Your task to perform on an android device: Open the Play Movies app and select the watchlist tab. Image 0: 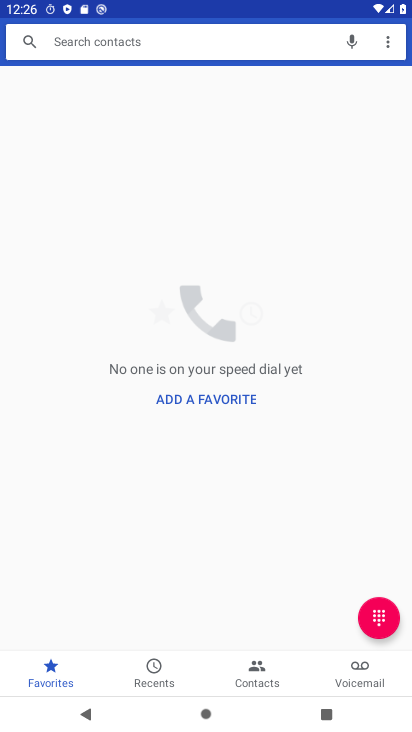
Step 0: press home button
Your task to perform on an android device: Open the Play Movies app and select the watchlist tab. Image 1: 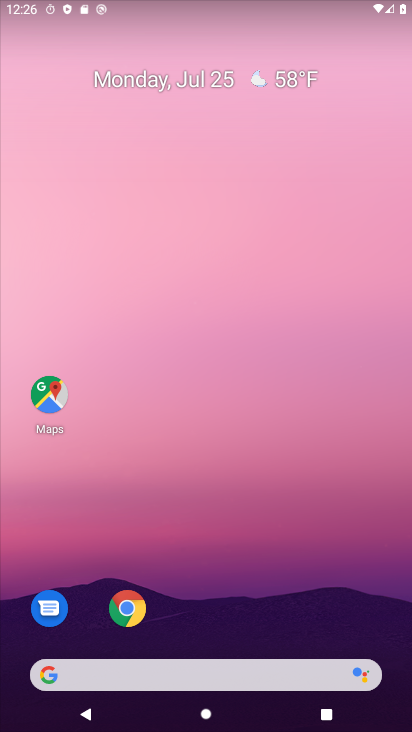
Step 1: drag from (362, 594) to (262, 44)
Your task to perform on an android device: Open the Play Movies app and select the watchlist tab. Image 2: 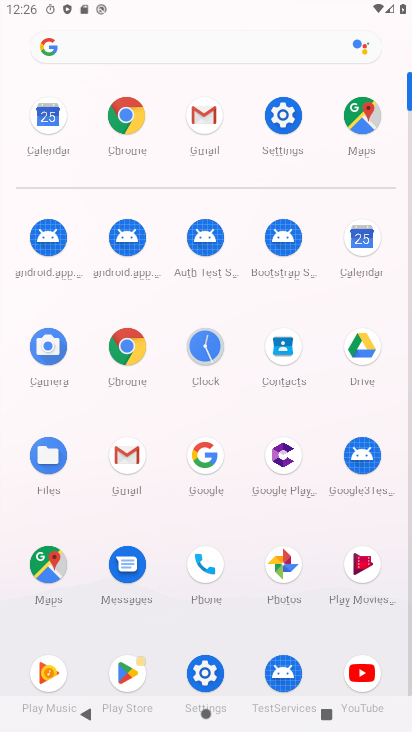
Step 2: click (364, 573)
Your task to perform on an android device: Open the Play Movies app and select the watchlist tab. Image 3: 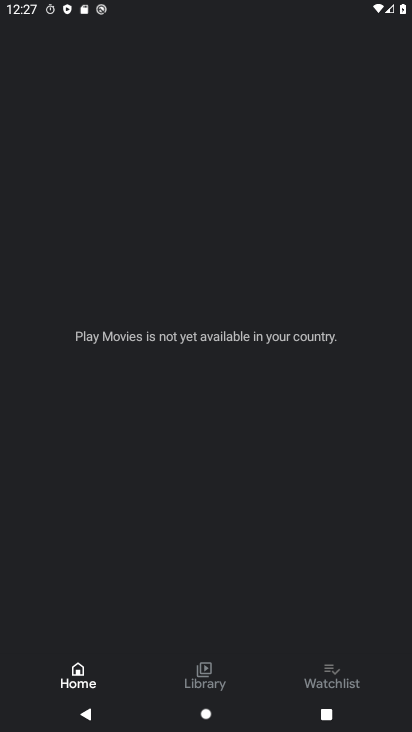
Step 3: click (286, 631)
Your task to perform on an android device: Open the Play Movies app and select the watchlist tab. Image 4: 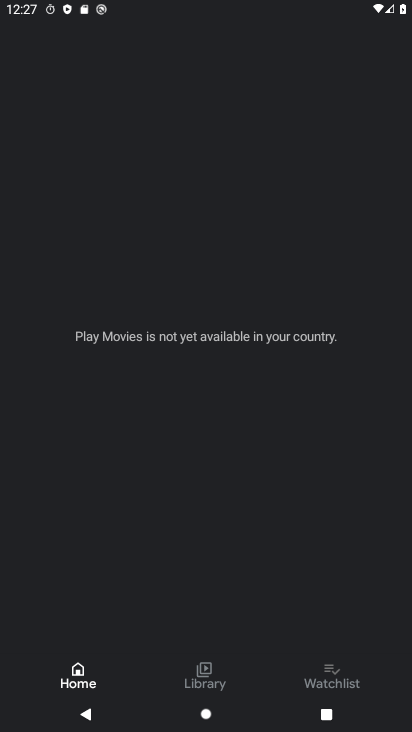
Step 4: click (324, 668)
Your task to perform on an android device: Open the Play Movies app and select the watchlist tab. Image 5: 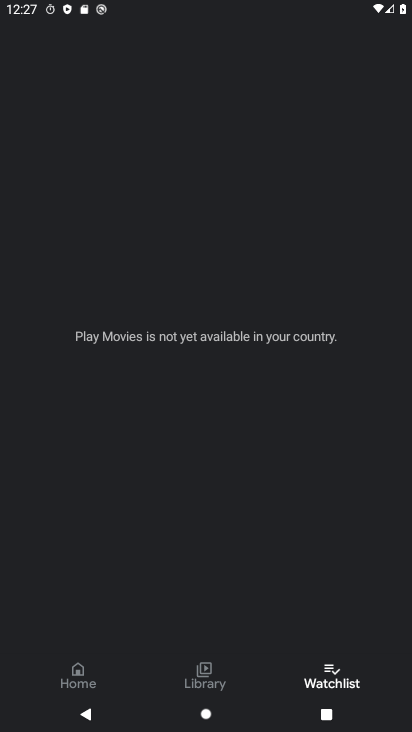
Step 5: task complete